Your task to perform on an android device: Open ESPN.com Image 0: 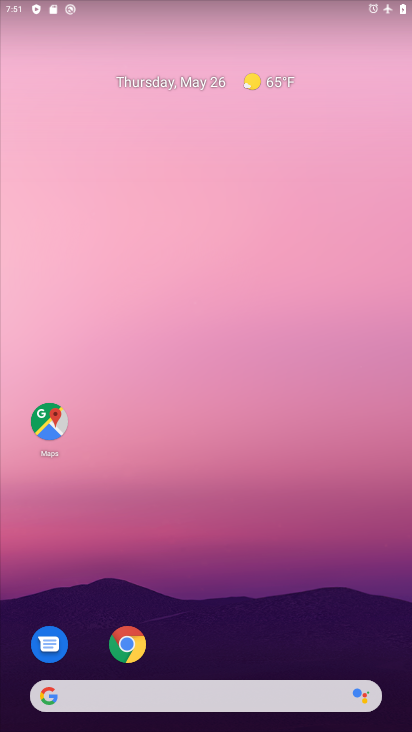
Step 0: drag from (233, 171) to (269, 37)
Your task to perform on an android device: Open ESPN.com Image 1: 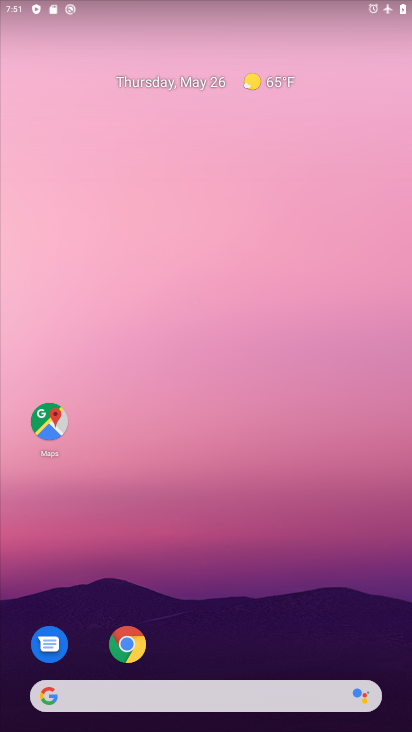
Step 1: drag from (189, 652) to (252, 174)
Your task to perform on an android device: Open ESPN.com Image 2: 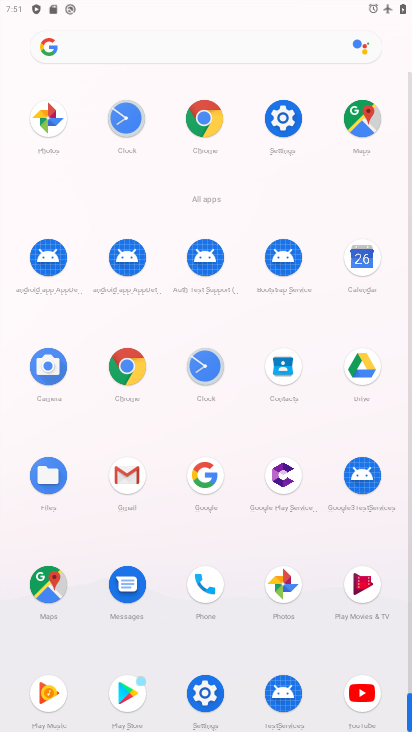
Step 2: click (122, 369)
Your task to perform on an android device: Open ESPN.com Image 3: 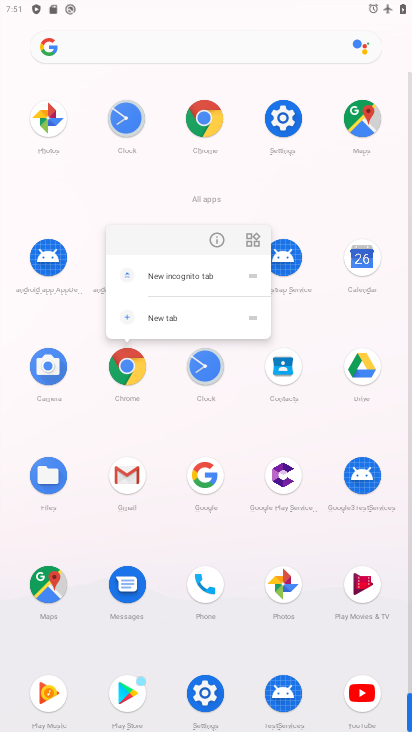
Step 3: click (216, 231)
Your task to perform on an android device: Open ESPN.com Image 4: 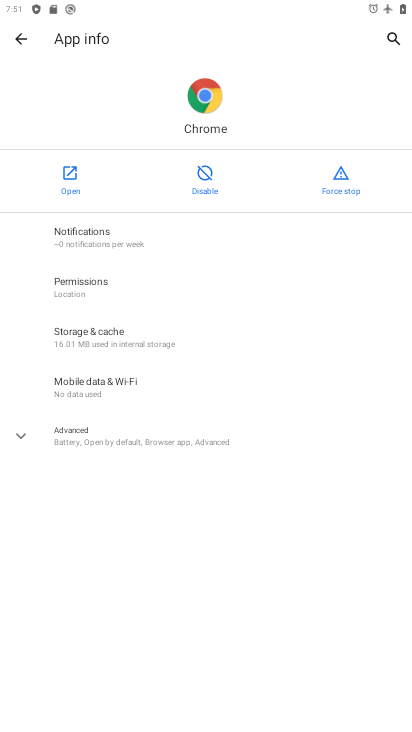
Step 4: click (64, 193)
Your task to perform on an android device: Open ESPN.com Image 5: 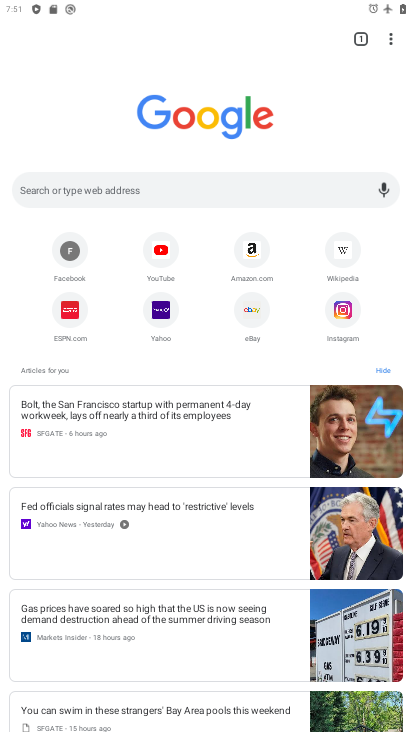
Step 5: click (88, 309)
Your task to perform on an android device: Open ESPN.com Image 6: 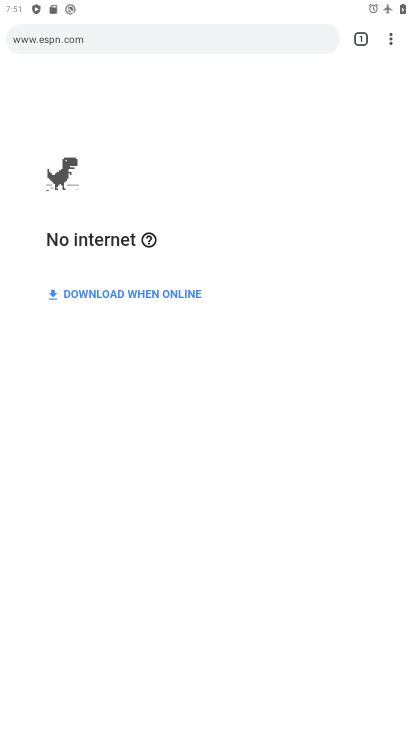
Step 6: task complete